Your task to perform on an android device: Go to Google maps Image 0: 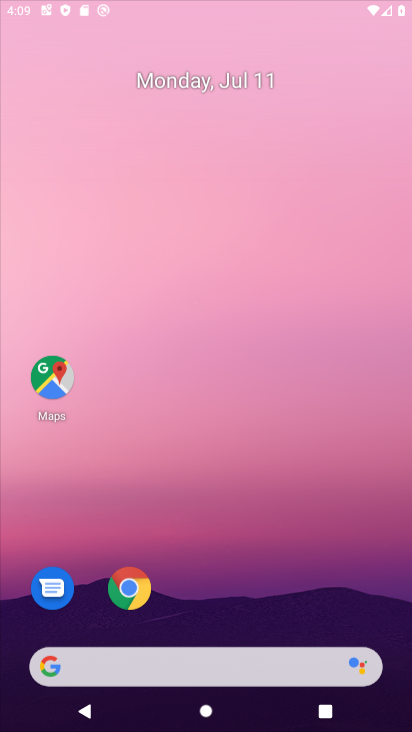
Step 0: press home button
Your task to perform on an android device: Go to Google maps Image 1: 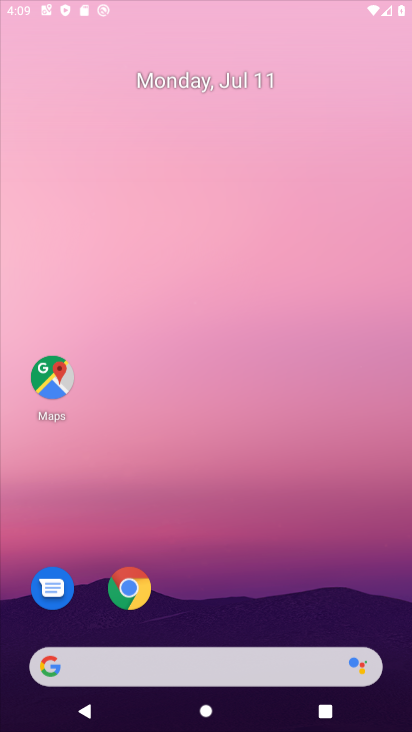
Step 1: click (325, 18)
Your task to perform on an android device: Go to Google maps Image 2: 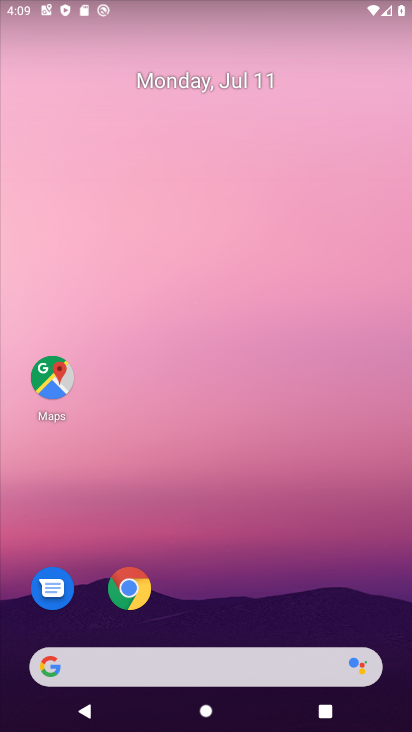
Step 2: drag from (353, 616) to (363, 173)
Your task to perform on an android device: Go to Google maps Image 3: 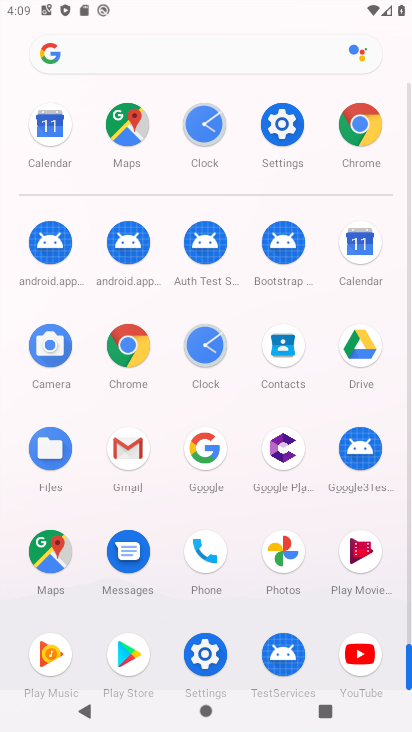
Step 3: click (60, 551)
Your task to perform on an android device: Go to Google maps Image 4: 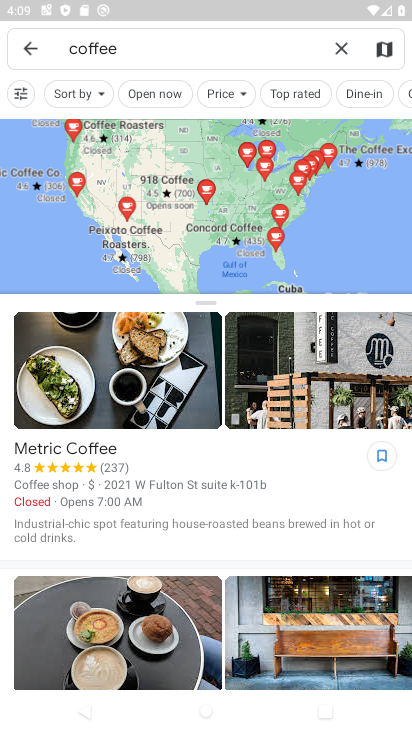
Step 4: task complete